Your task to perform on an android device: Open Amazon Image 0: 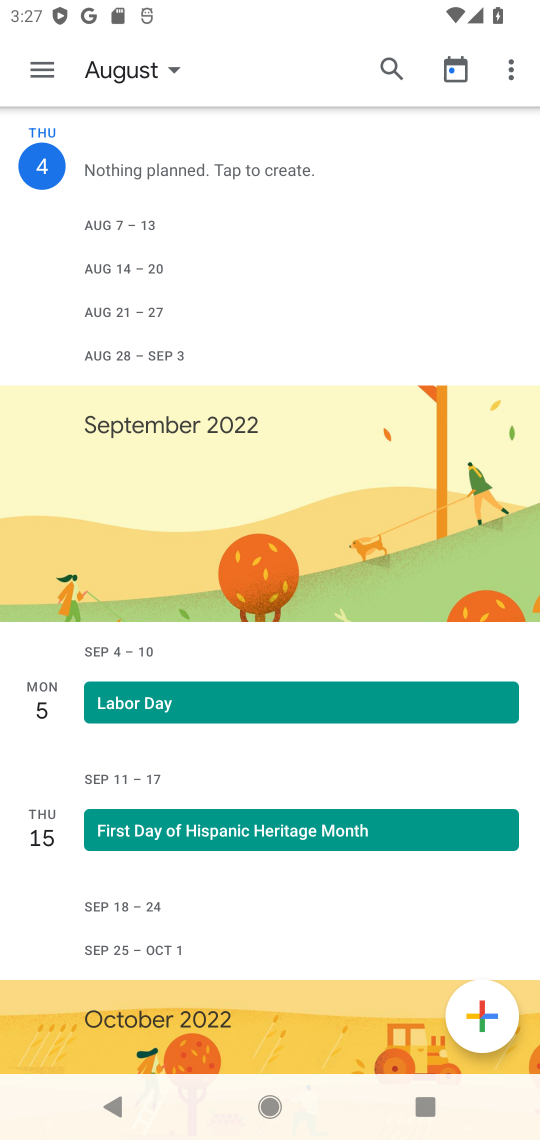
Step 0: press home button
Your task to perform on an android device: Open Amazon Image 1: 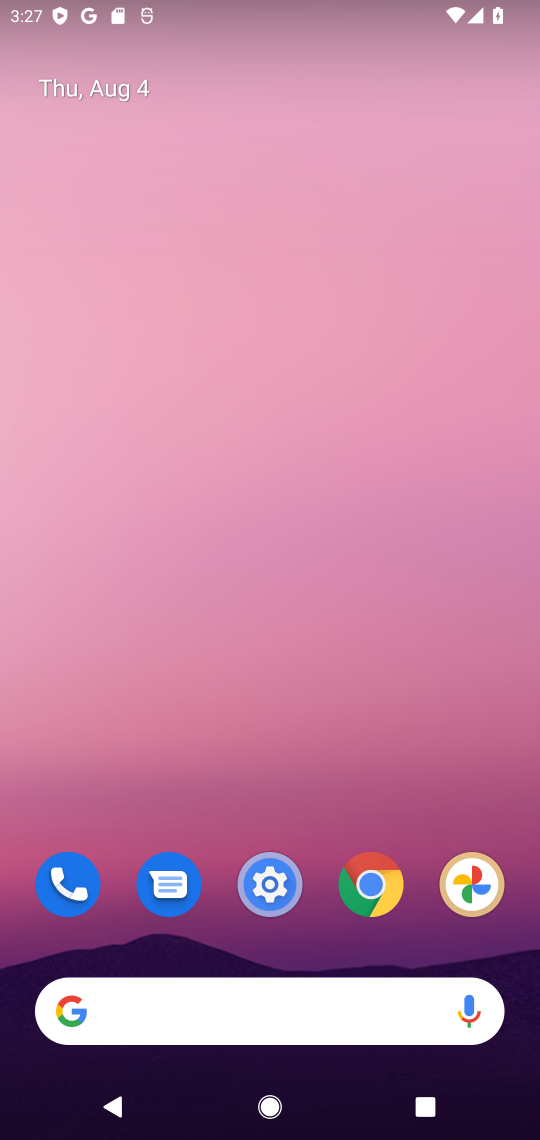
Step 1: drag from (230, 845) to (258, 182)
Your task to perform on an android device: Open Amazon Image 2: 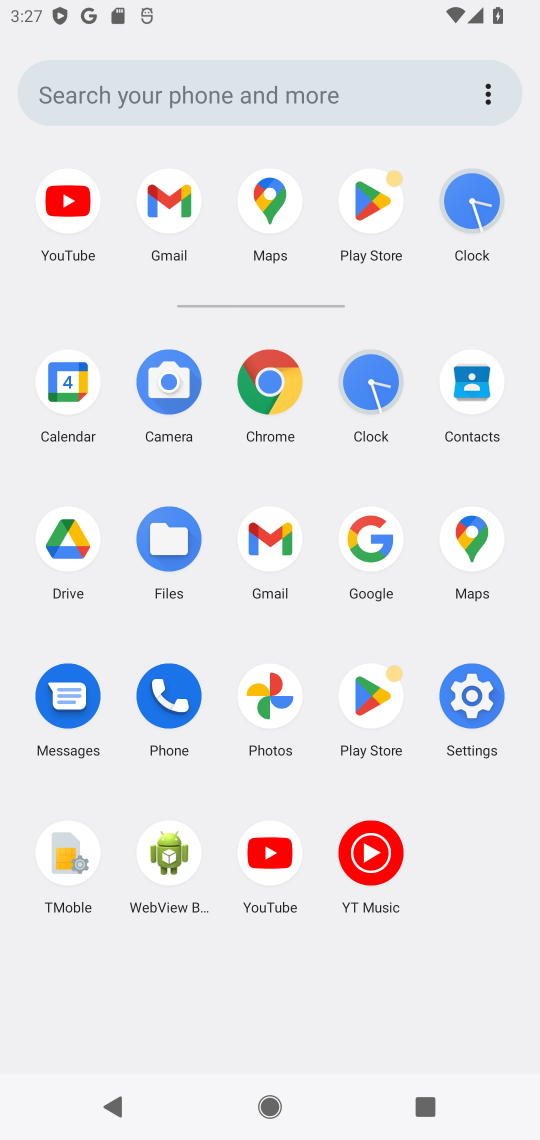
Step 2: click (175, 92)
Your task to perform on an android device: Open Amazon Image 3: 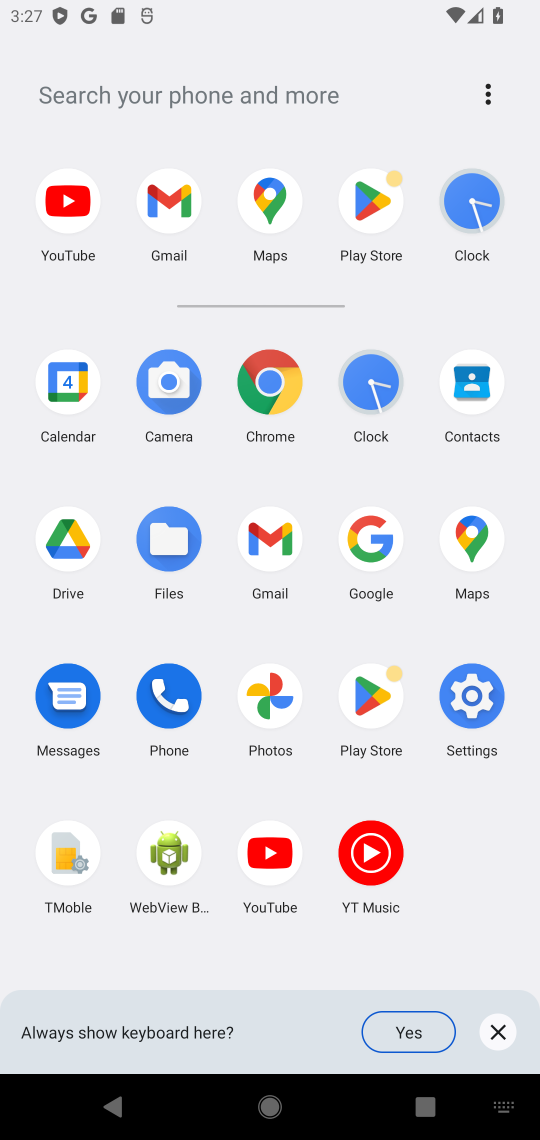
Step 3: type "Open Amazon"
Your task to perform on an android device: Open Amazon Image 4: 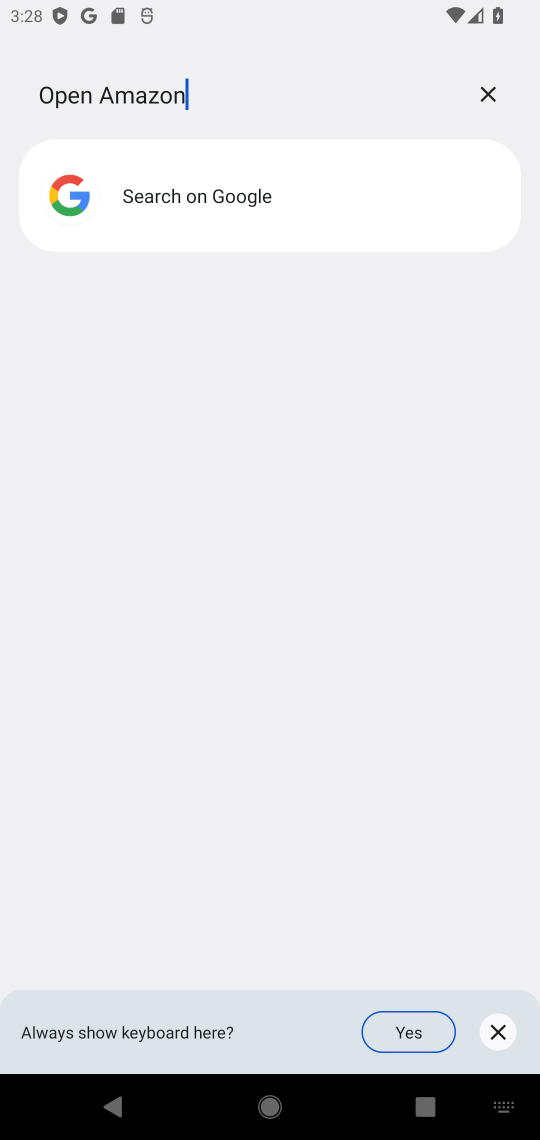
Step 4: click (114, 196)
Your task to perform on an android device: Open Amazon Image 5: 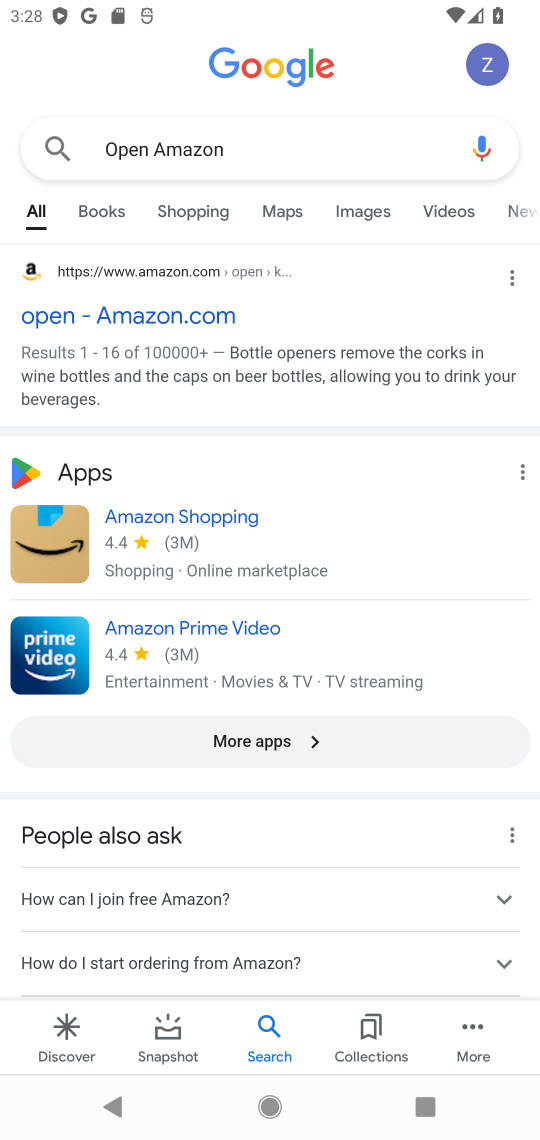
Step 5: drag from (257, 365) to (373, 881)
Your task to perform on an android device: Open Amazon Image 6: 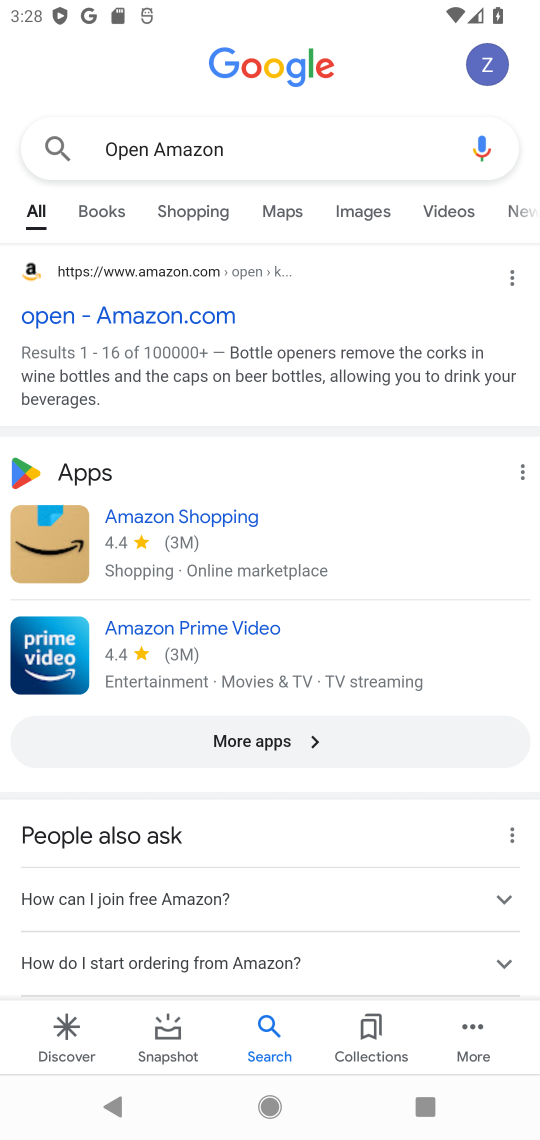
Step 6: click (82, 317)
Your task to perform on an android device: Open Amazon Image 7: 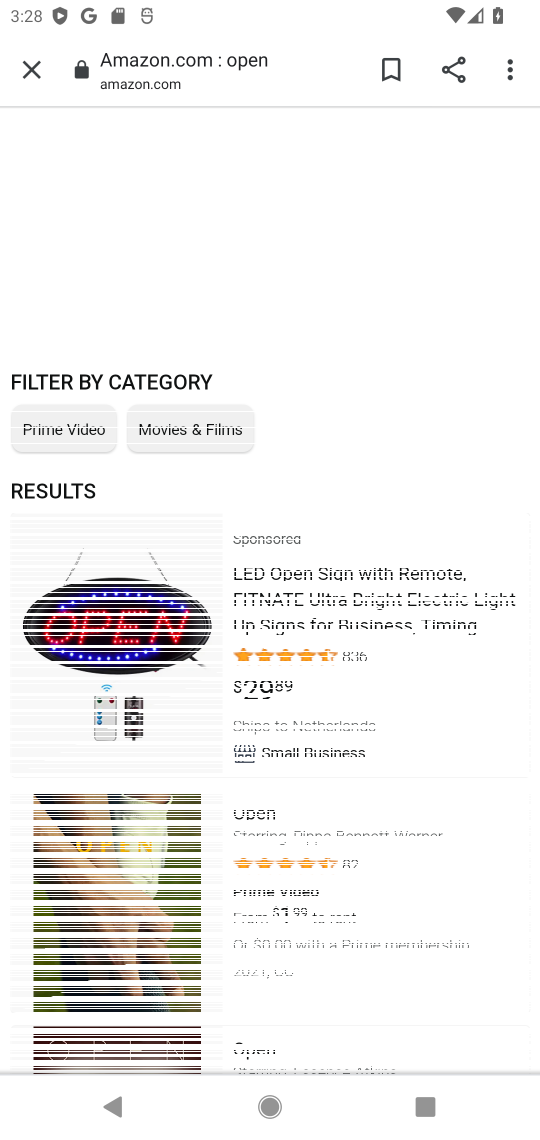
Step 7: task complete